Your task to perform on an android device: set an alarm Image 0: 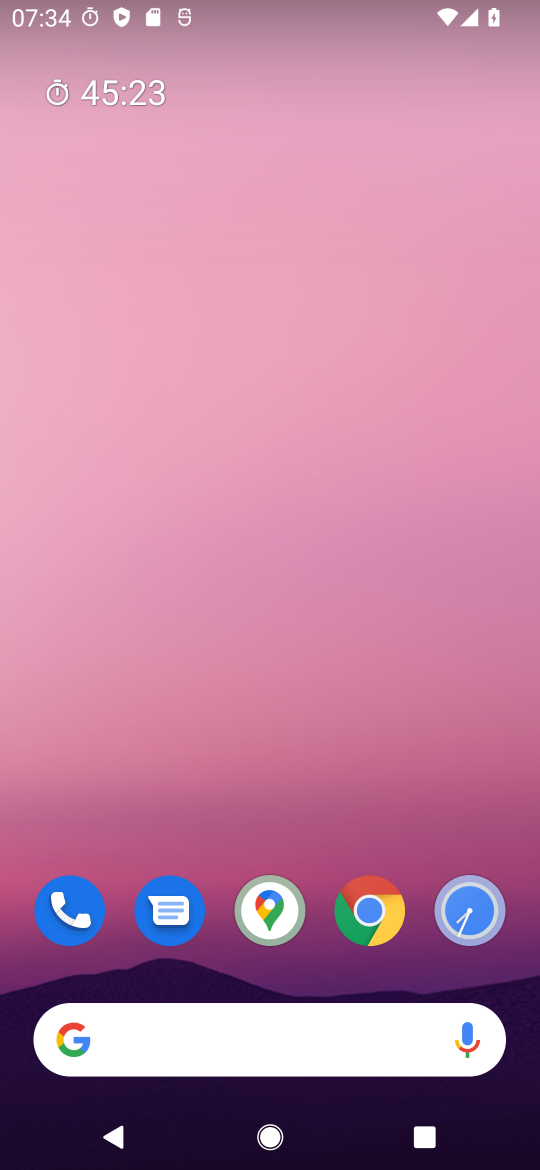
Step 0: drag from (318, 990) to (253, 132)
Your task to perform on an android device: set an alarm Image 1: 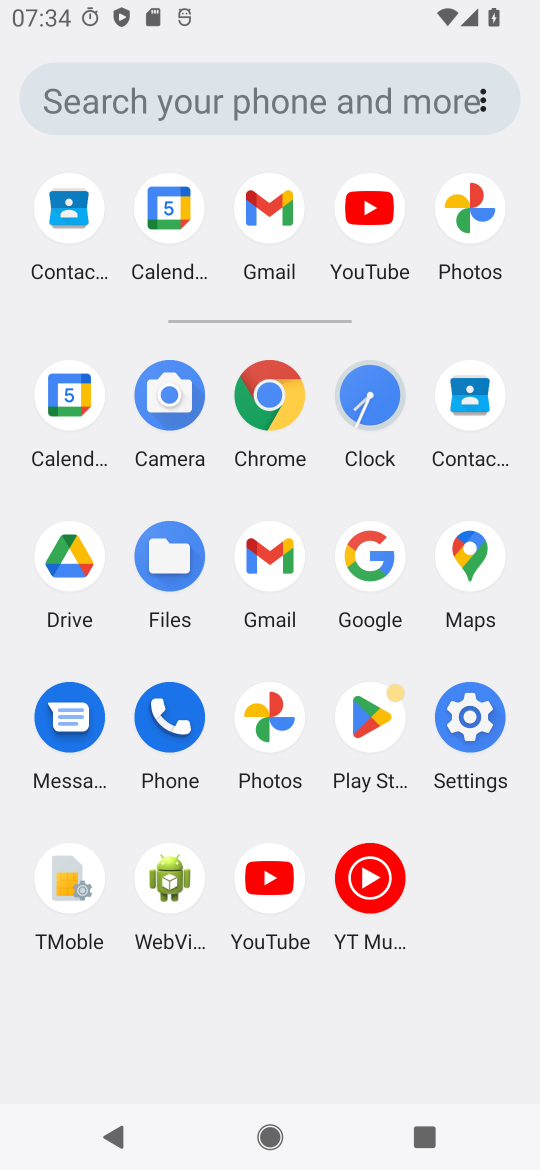
Step 1: click (371, 423)
Your task to perform on an android device: set an alarm Image 2: 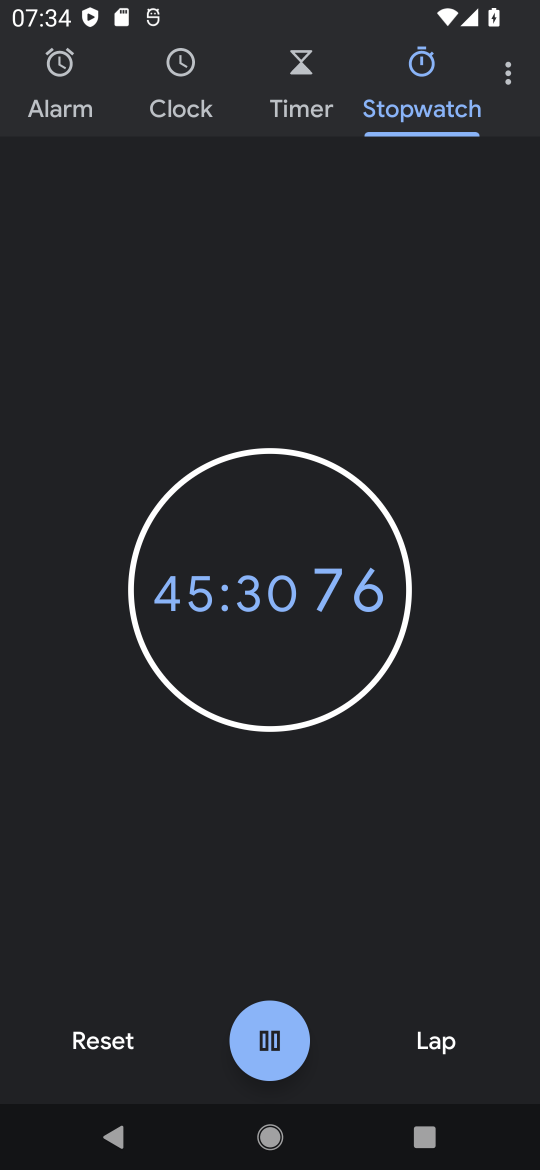
Step 2: click (62, 48)
Your task to perform on an android device: set an alarm Image 3: 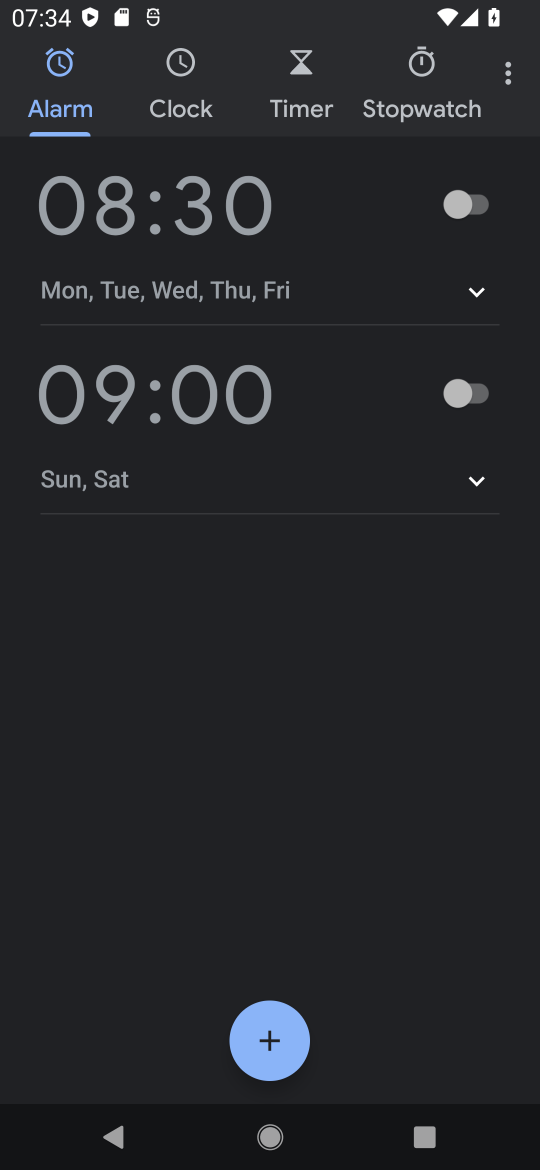
Step 3: click (482, 213)
Your task to perform on an android device: set an alarm Image 4: 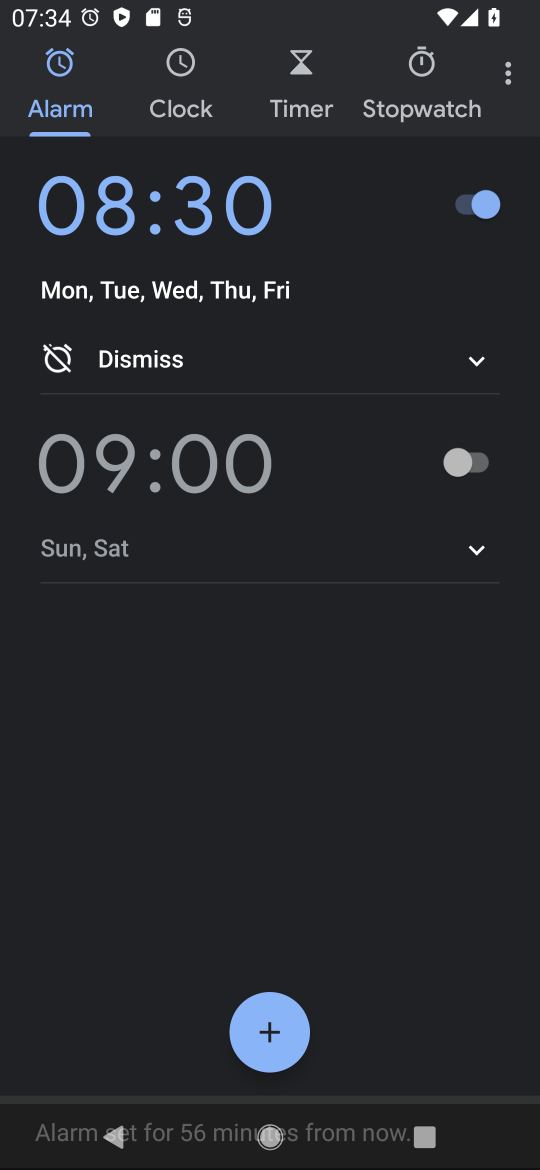
Step 4: task complete